Your task to perform on an android device: choose inbox layout in the gmail app Image 0: 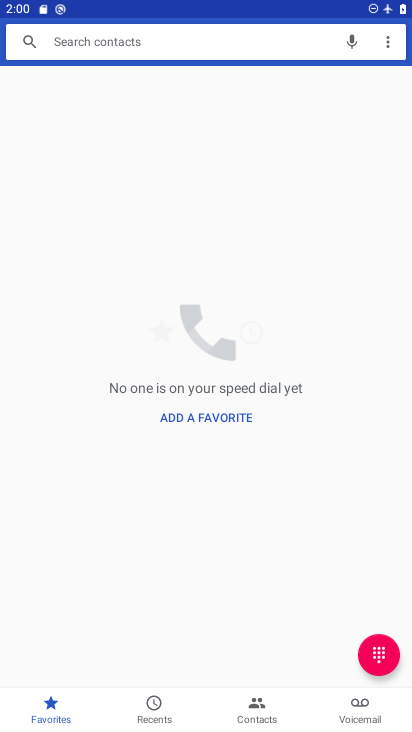
Step 0: drag from (224, 589) to (272, 272)
Your task to perform on an android device: choose inbox layout in the gmail app Image 1: 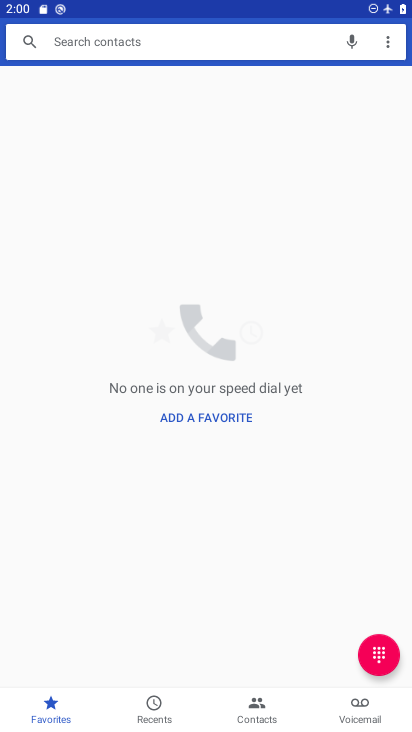
Step 1: press home button
Your task to perform on an android device: choose inbox layout in the gmail app Image 2: 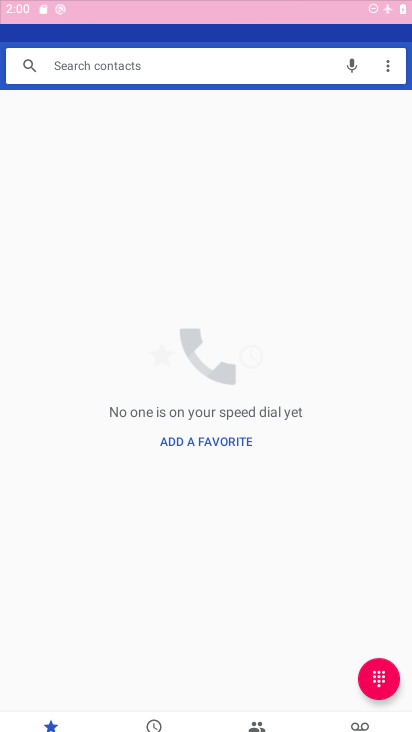
Step 2: drag from (166, 584) to (258, 50)
Your task to perform on an android device: choose inbox layout in the gmail app Image 3: 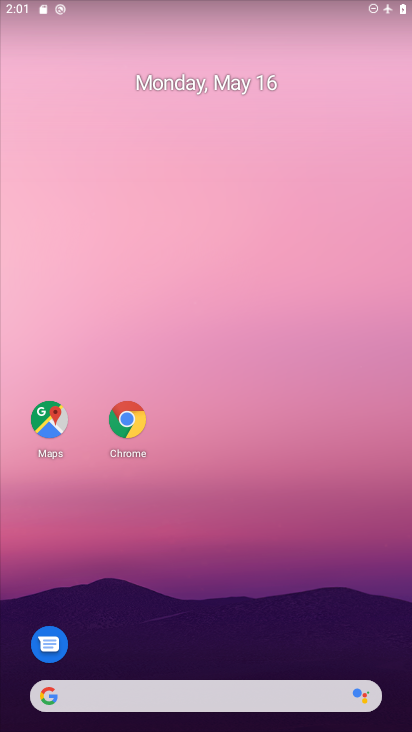
Step 3: drag from (181, 587) to (248, 208)
Your task to perform on an android device: choose inbox layout in the gmail app Image 4: 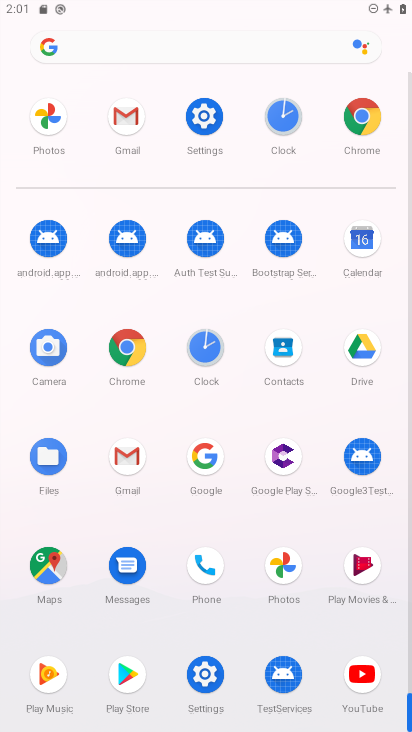
Step 4: click (129, 465)
Your task to perform on an android device: choose inbox layout in the gmail app Image 5: 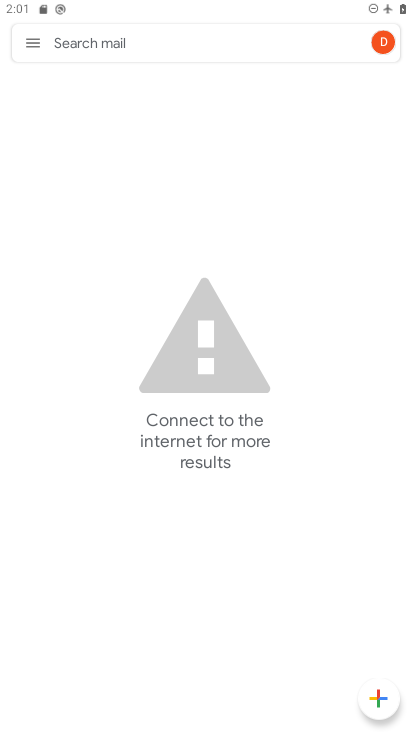
Step 5: click (35, 41)
Your task to perform on an android device: choose inbox layout in the gmail app Image 6: 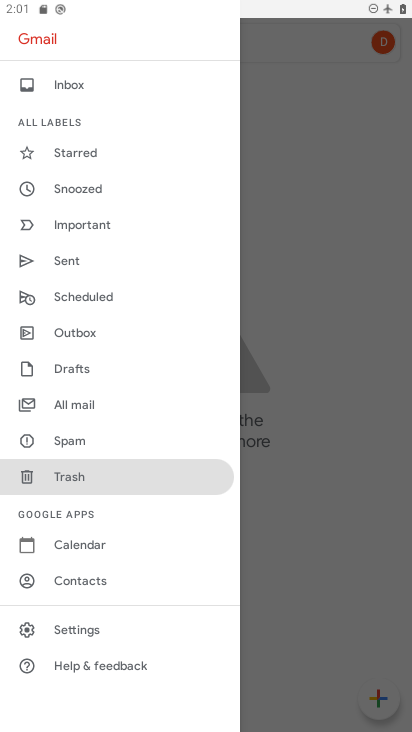
Step 6: drag from (119, 171) to (155, 621)
Your task to perform on an android device: choose inbox layout in the gmail app Image 7: 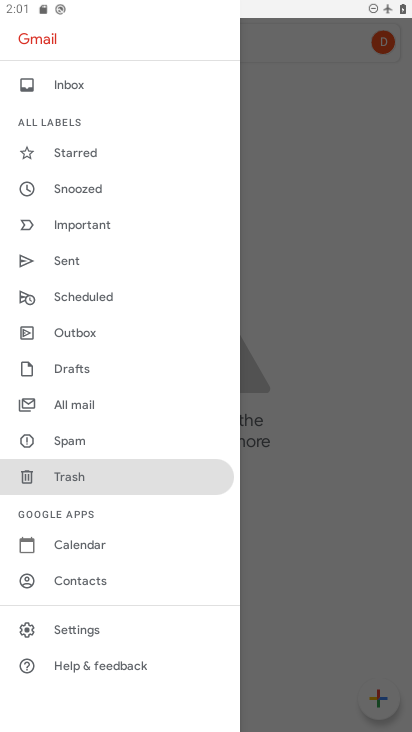
Step 7: drag from (117, 522) to (163, 205)
Your task to perform on an android device: choose inbox layout in the gmail app Image 8: 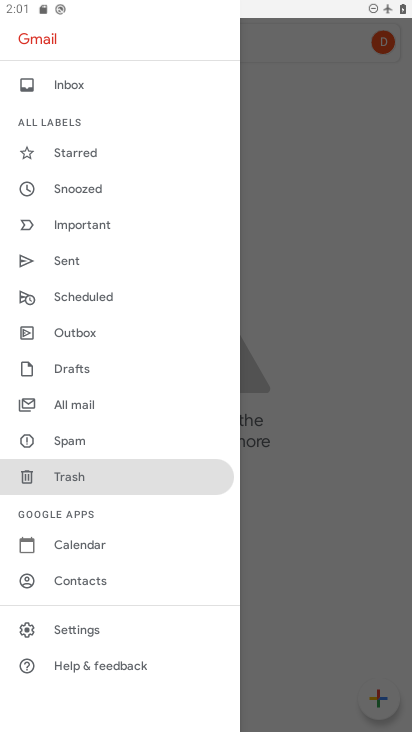
Step 8: click (83, 477)
Your task to perform on an android device: choose inbox layout in the gmail app Image 9: 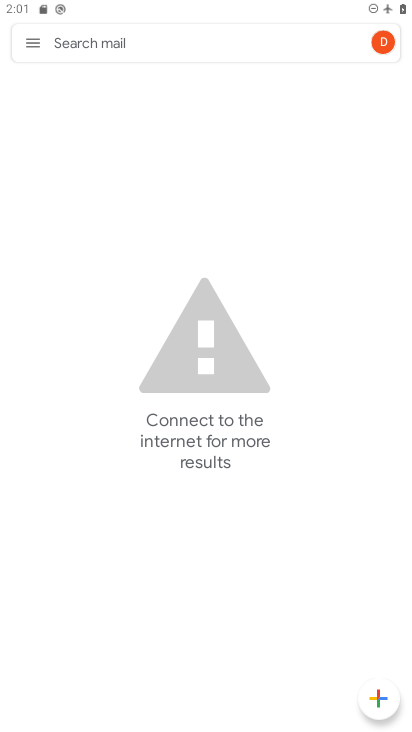
Step 9: click (33, 54)
Your task to perform on an android device: choose inbox layout in the gmail app Image 10: 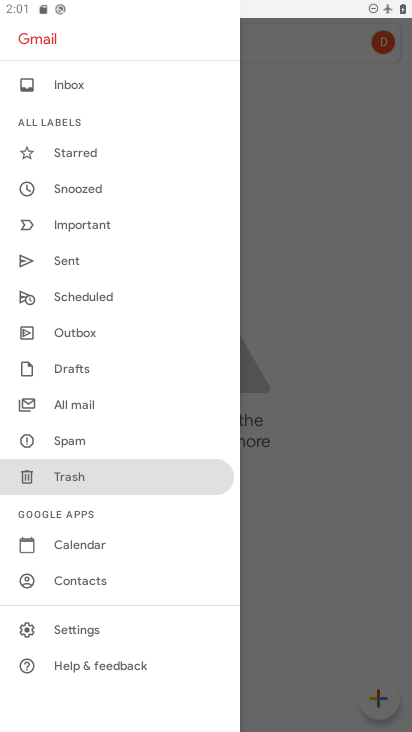
Step 10: drag from (121, 107) to (149, 666)
Your task to perform on an android device: choose inbox layout in the gmail app Image 11: 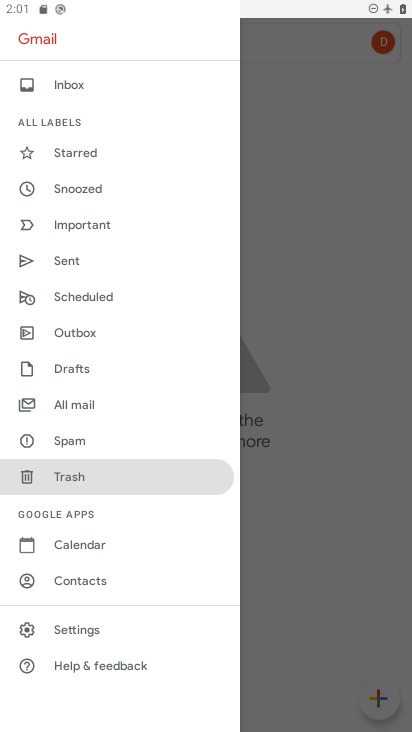
Step 11: click (91, 81)
Your task to perform on an android device: choose inbox layout in the gmail app Image 12: 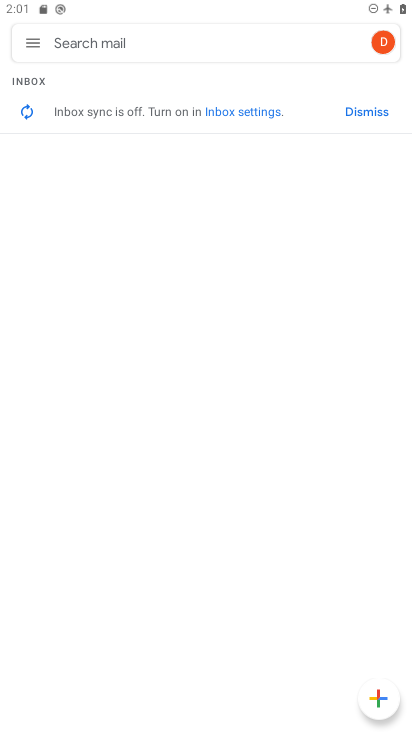
Step 12: task complete